Your task to perform on an android device: Open Google Chrome Image 0: 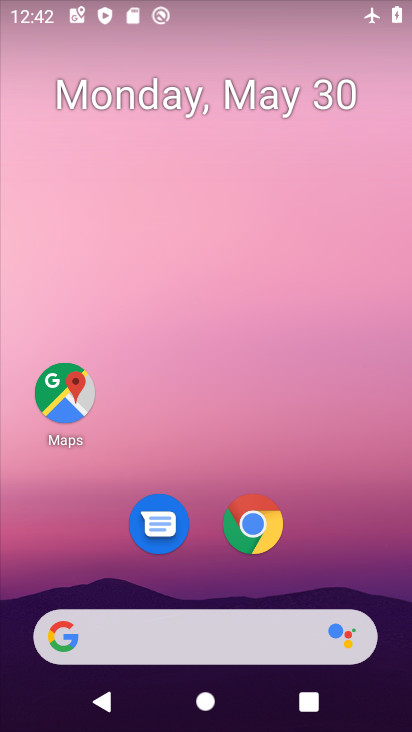
Step 0: click (261, 519)
Your task to perform on an android device: Open Google Chrome Image 1: 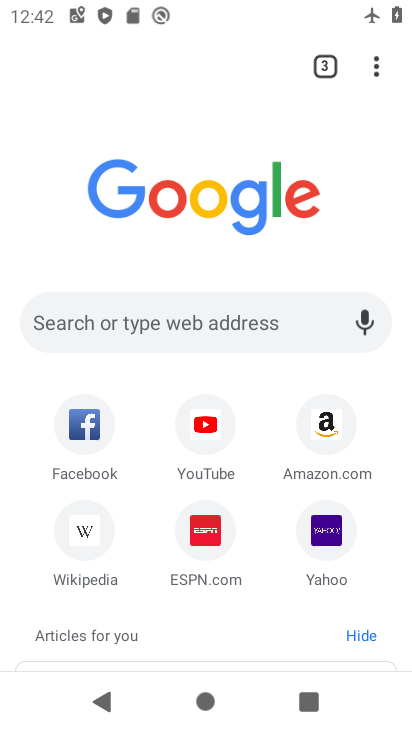
Step 1: task complete